Your task to perform on an android device: Search for sushi restaurants on Maps Image 0: 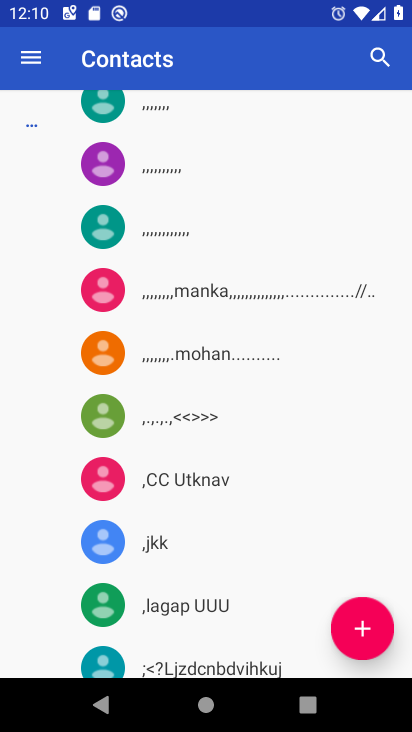
Step 0: press home button
Your task to perform on an android device: Search for sushi restaurants on Maps Image 1: 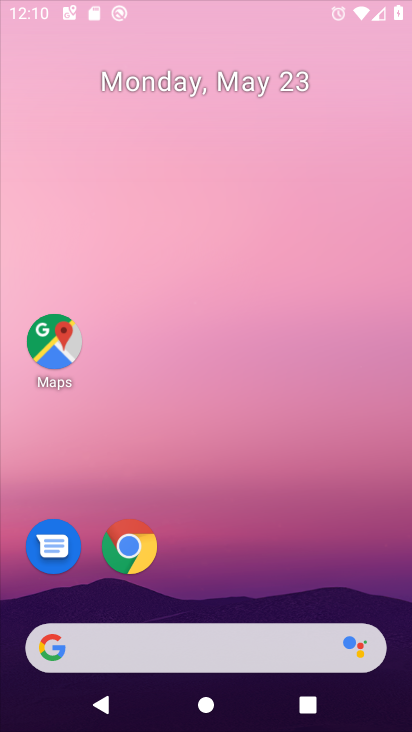
Step 1: drag from (280, 622) to (345, 94)
Your task to perform on an android device: Search for sushi restaurants on Maps Image 2: 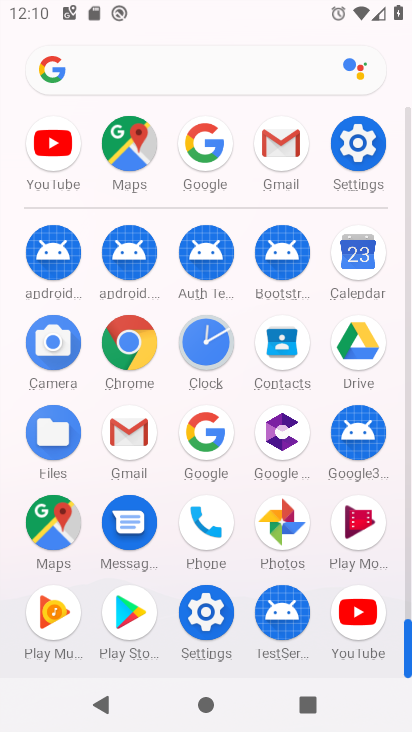
Step 2: click (66, 526)
Your task to perform on an android device: Search for sushi restaurants on Maps Image 3: 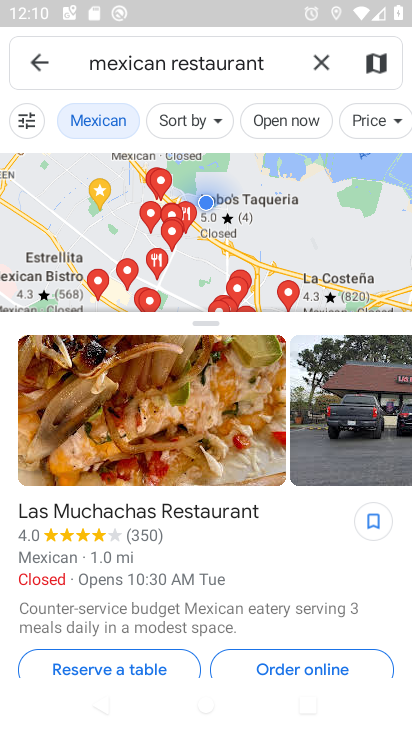
Step 3: click (329, 66)
Your task to perform on an android device: Search for sushi restaurants on Maps Image 4: 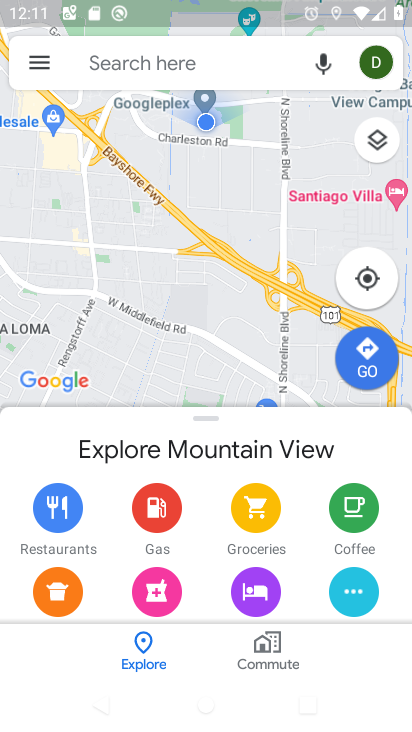
Step 4: click (193, 74)
Your task to perform on an android device: Search for sushi restaurants on Maps Image 5: 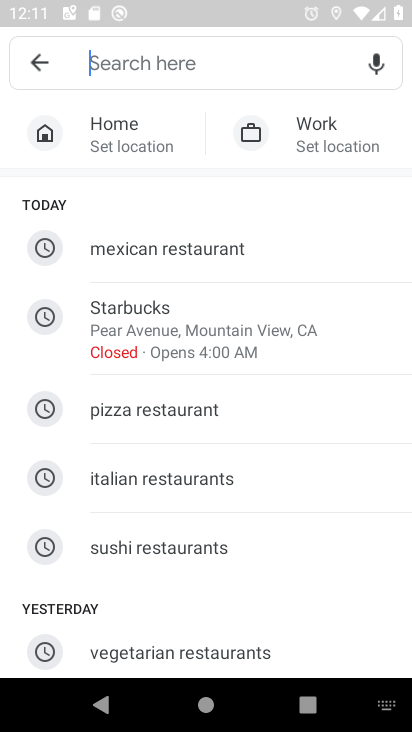
Step 5: click (186, 548)
Your task to perform on an android device: Search for sushi restaurants on Maps Image 6: 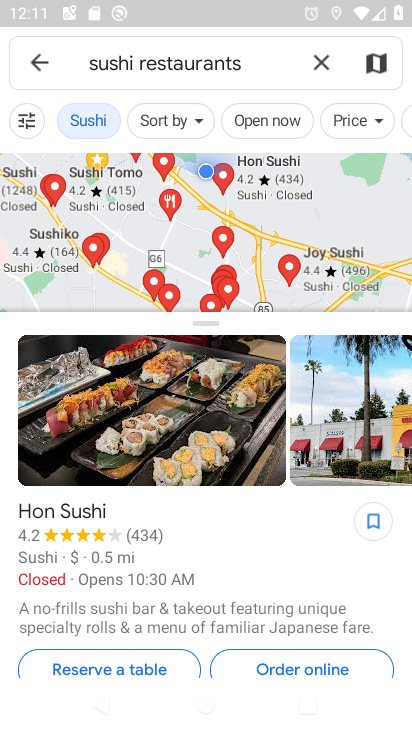
Step 6: task complete